Your task to perform on an android device: set an alarm Image 0: 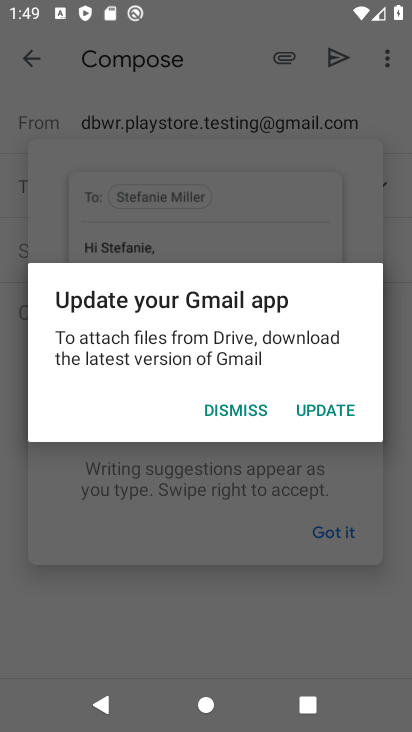
Step 0: press home button
Your task to perform on an android device: set an alarm Image 1: 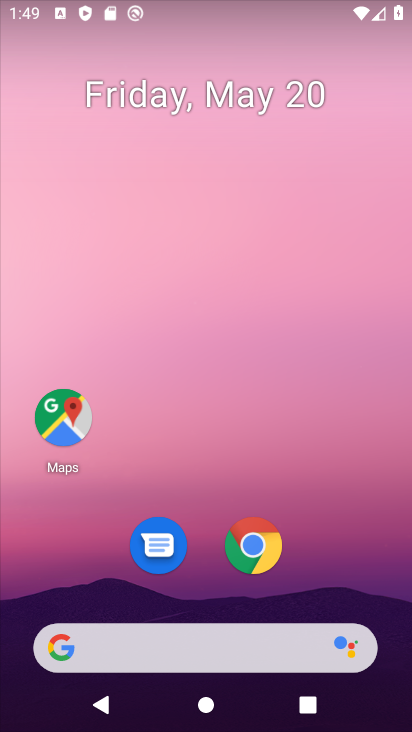
Step 1: drag from (203, 576) to (267, 99)
Your task to perform on an android device: set an alarm Image 2: 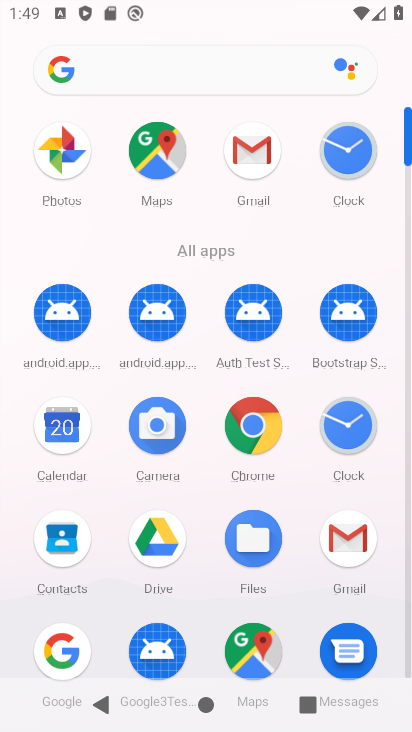
Step 2: click (345, 435)
Your task to perform on an android device: set an alarm Image 3: 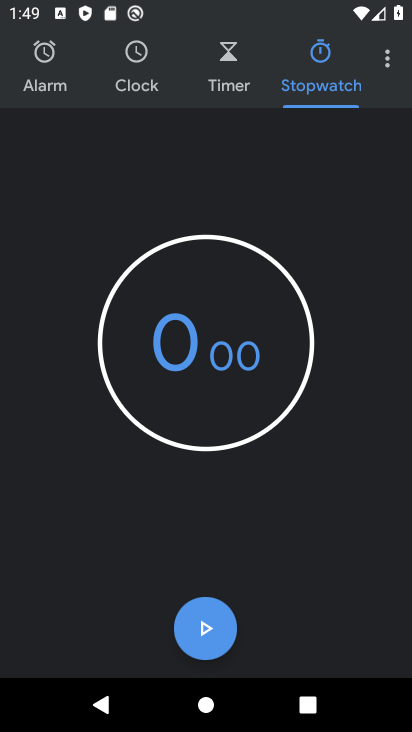
Step 3: click (57, 69)
Your task to perform on an android device: set an alarm Image 4: 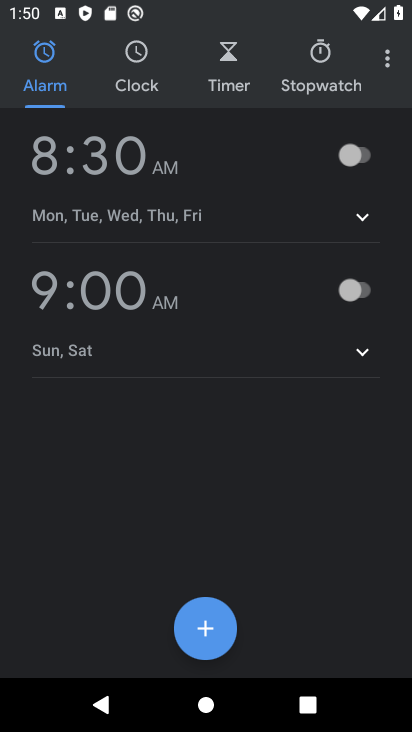
Step 4: task complete